Your task to perform on an android device: What's the weather? Image 0: 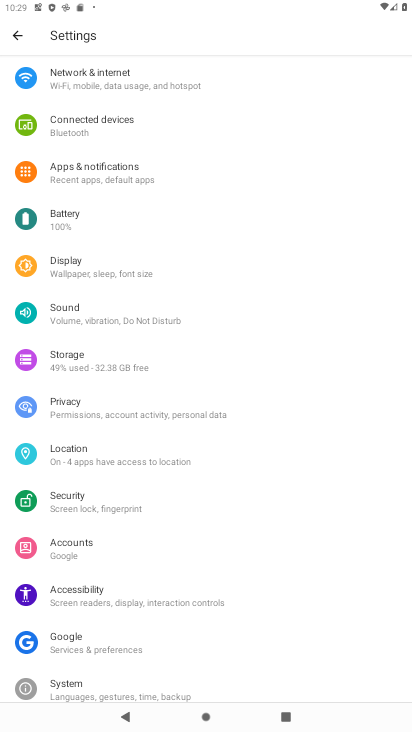
Step 0: press home button
Your task to perform on an android device: What's the weather? Image 1: 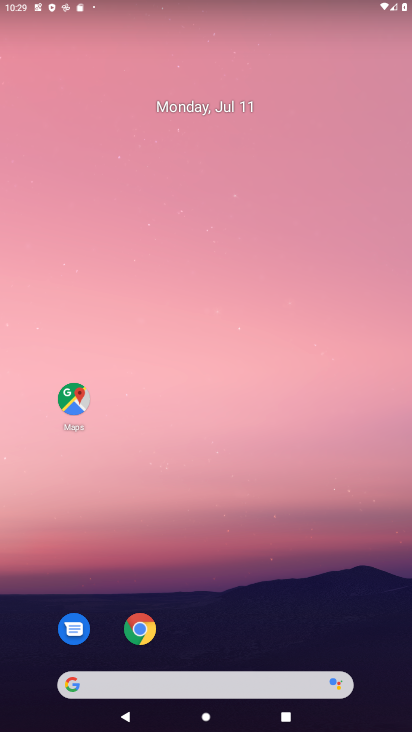
Step 1: click (204, 676)
Your task to perform on an android device: What's the weather? Image 2: 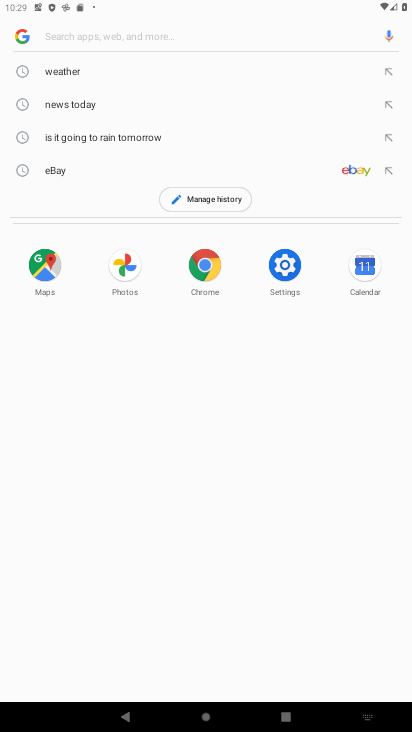
Step 2: click (122, 70)
Your task to perform on an android device: What's the weather? Image 3: 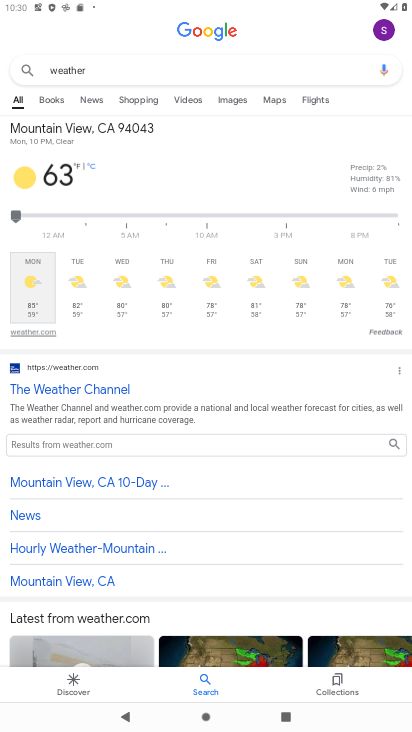
Step 3: task complete